Your task to perform on an android device: turn off airplane mode Image 0: 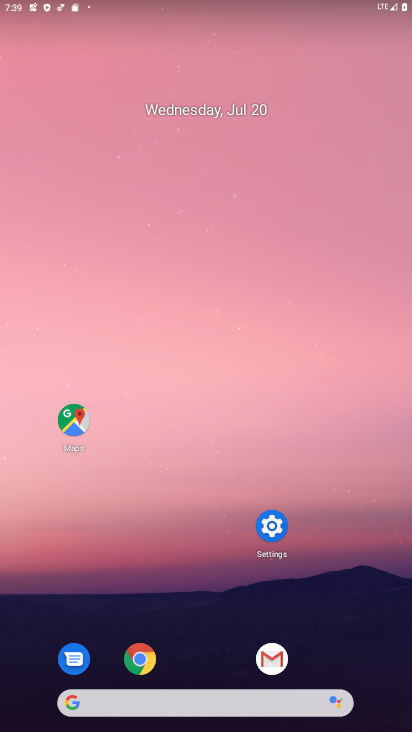
Step 0: click (275, 524)
Your task to perform on an android device: turn off airplane mode Image 1: 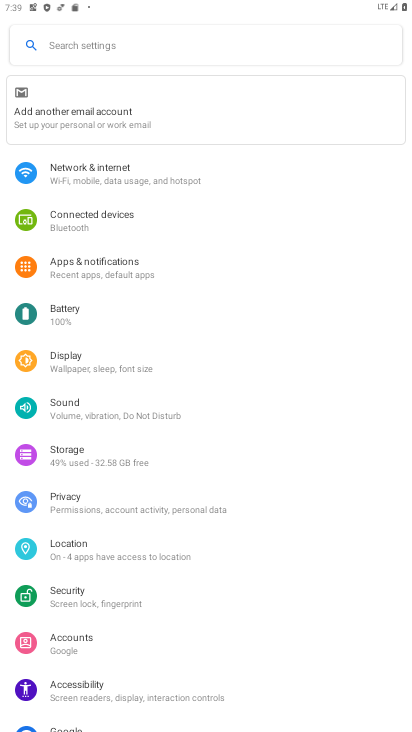
Step 1: click (165, 183)
Your task to perform on an android device: turn off airplane mode Image 2: 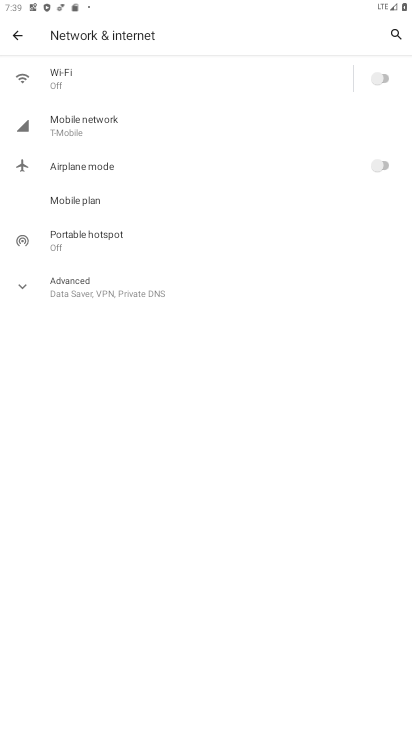
Step 2: click (87, 83)
Your task to perform on an android device: turn off airplane mode Image 3: 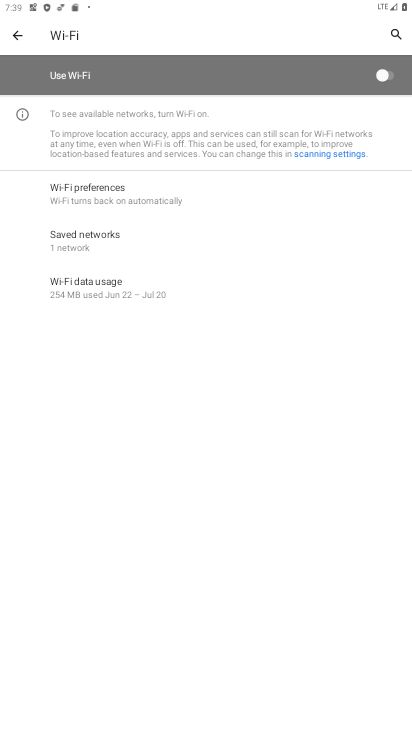
Step 3: click (392, 78)
Your task to perform on an android device: turn off airplane mode Image 4: 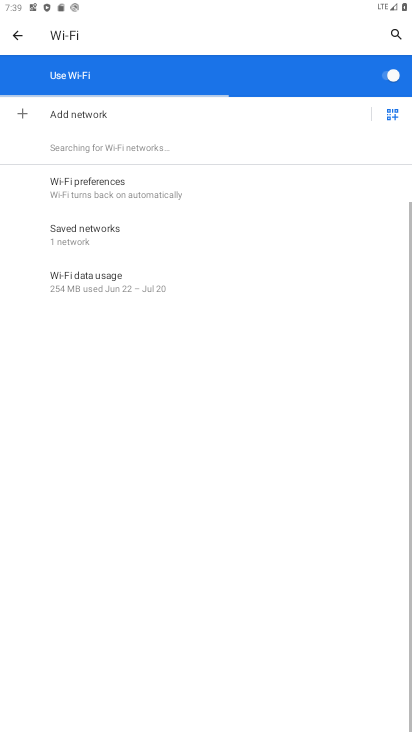
Step 4: click (396, 78)
Your task to perform on an android device: turn off airplane mode Image 5: 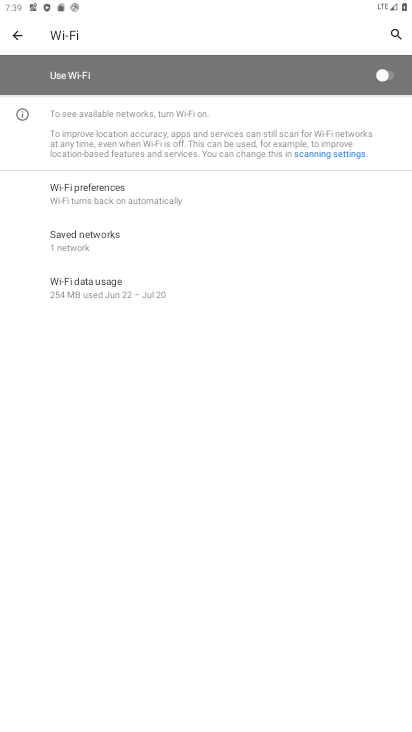
Step 5: task complete